Your task to perform on an android device: Open Chrome and go to settings Image 0: 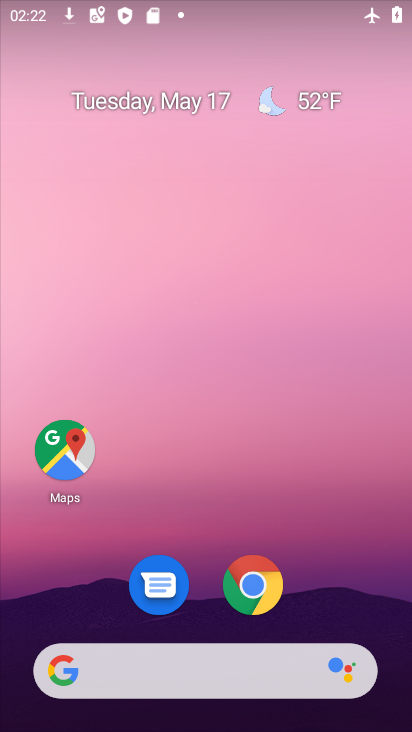
Step 0: click (263, 584)
Your task to perform on an android device: Open Chrome and go to settings Image 1: 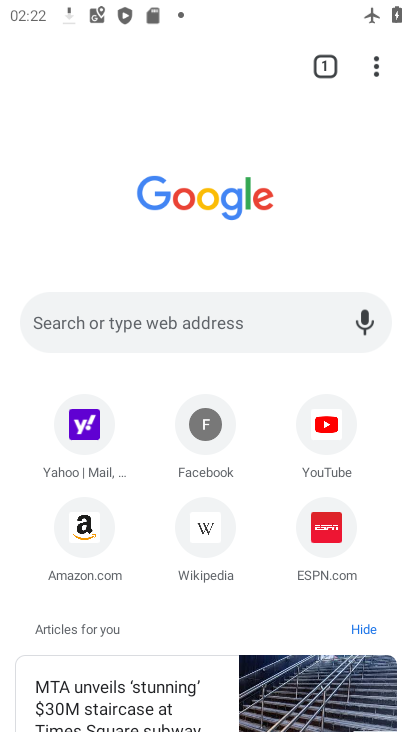
Step 1: click (371, 65)
Your task to perform on an android device: Open Chrome and go to settings Image 2: 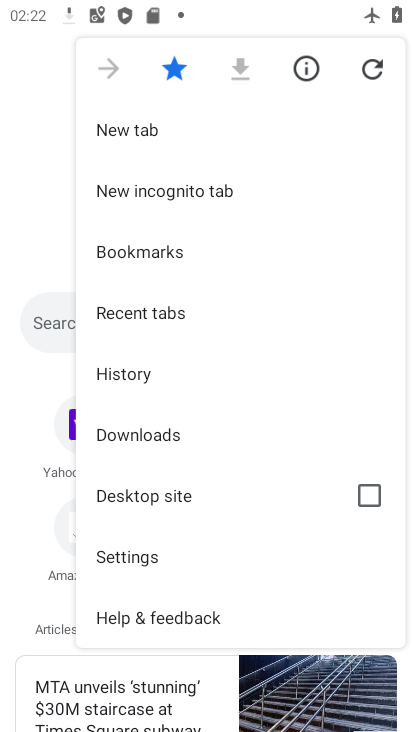
Step 2: click (186, 557)
Your task to perform on an android device: Open Chrome and go to settings Image 3: 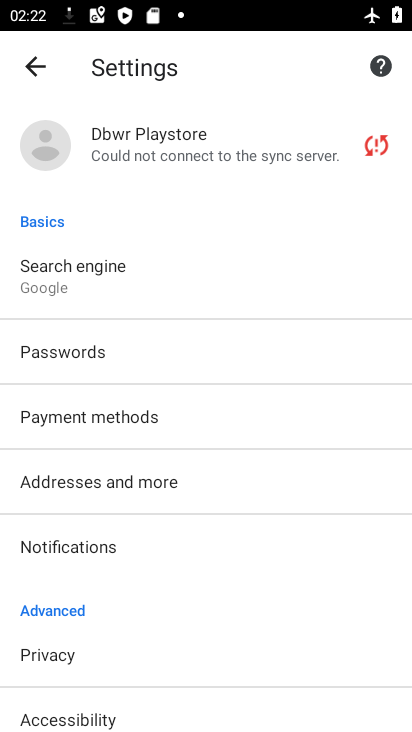
Step 3: task complete